Your task to perform on an android device: toggle notification dots Image 0: 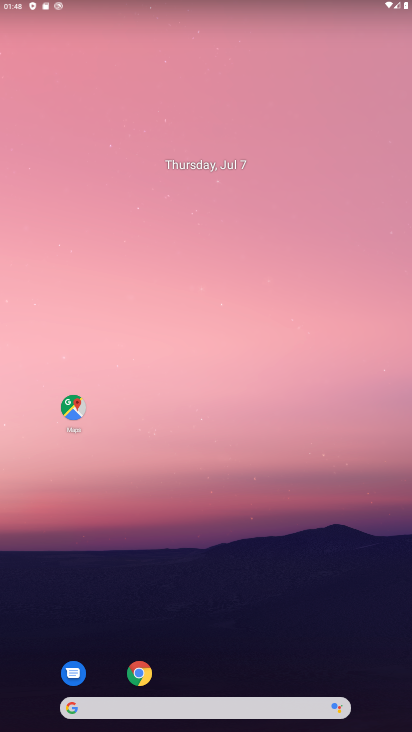
Step 0: drag from (201, 662) to (206, 153)
Your task to perform on an android device: toggle notification dots Image 1: 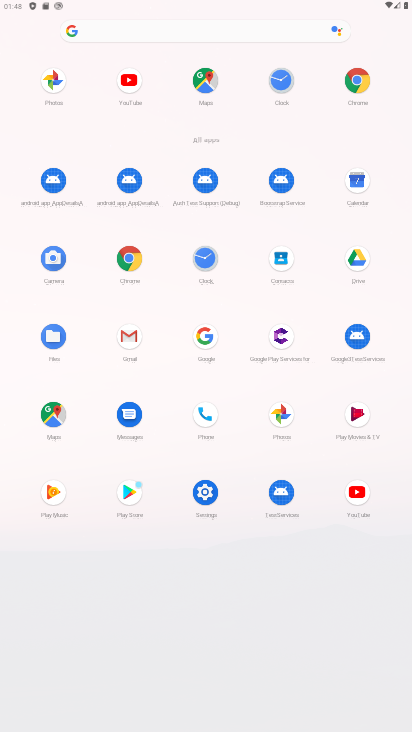
Step 1: click (204, 478)
Your task to perform on an android device: toggle notification dots Image 2: 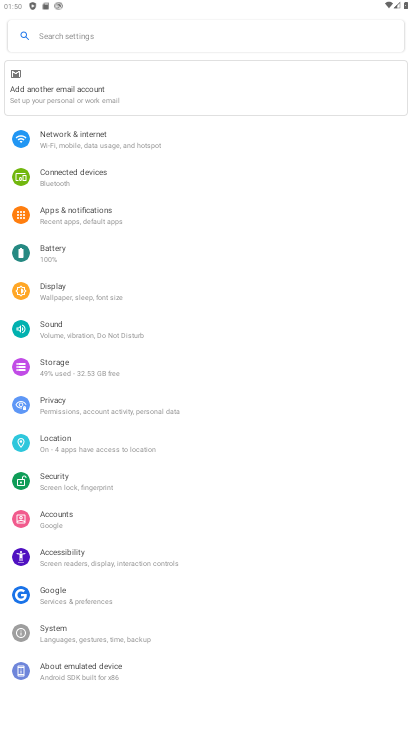
Step 2: click (126, 222)
Your task to perform on an android device: toggle notification dots Image 3: 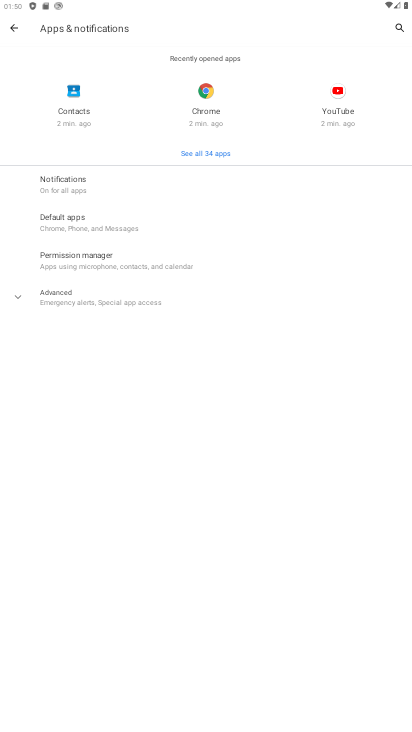
Step 3: click (112, 296)
Your task to perform on an android device: toggle notification dots Image 4: 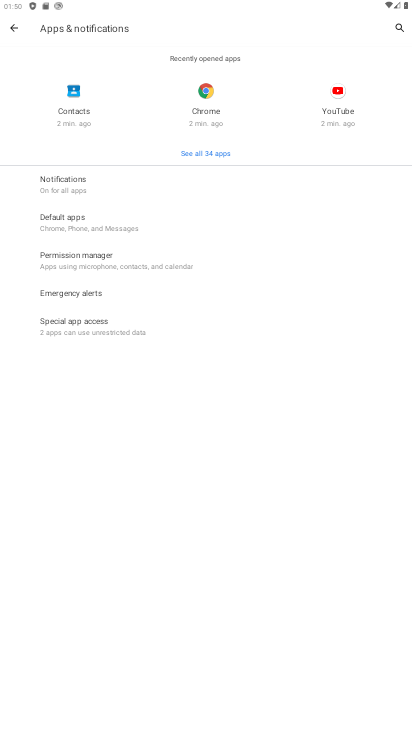
Step 4: click (87, 180)
Your task to perform on an android device: toggle notification dots Image 5: 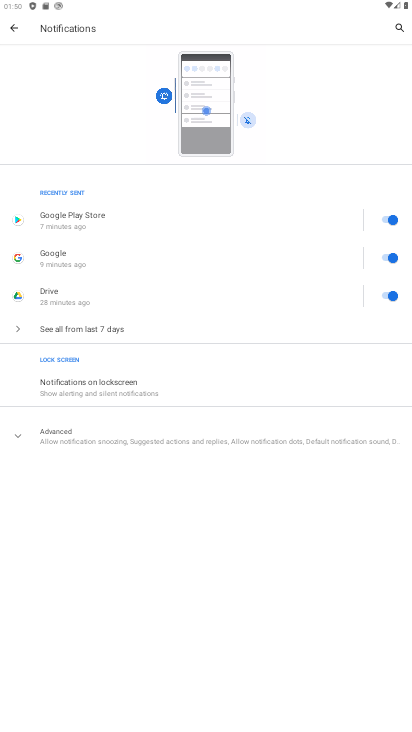
Step 5: click (121, 427)
Your task to perform on an android device: toggle notification dots Image 6: 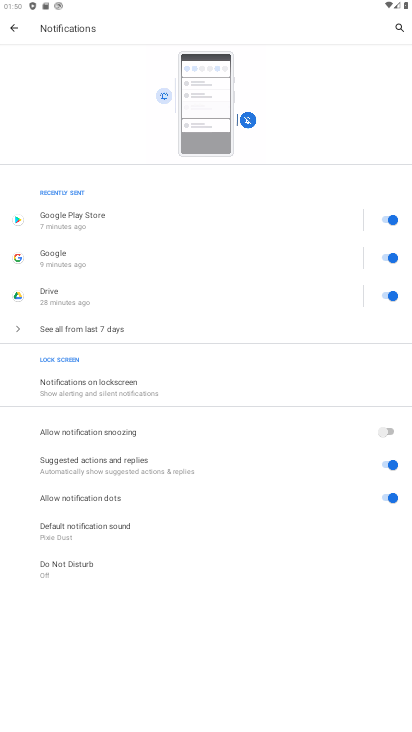
Step 6: click (367, 494)
Your task to perform on an android device: toggle notification dots Image 7: 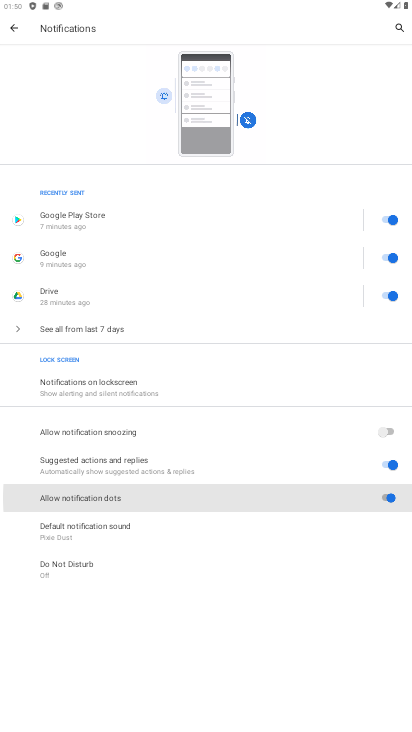
Step 7: click (380, 494)
Your task to perform on an android device: toggle notification dots Image 8: 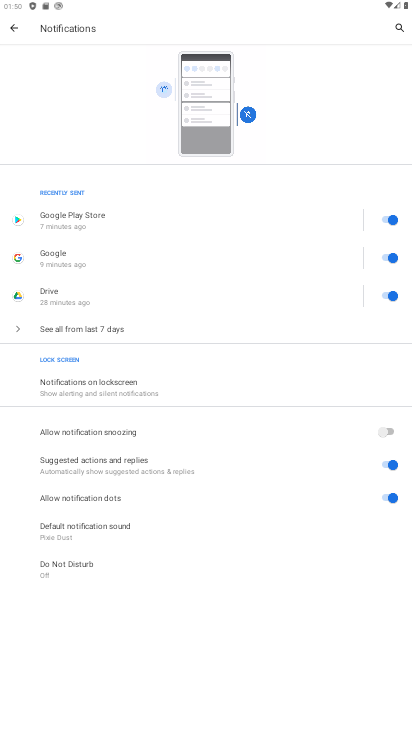
Step 8: click (388, 496)
Your task to perform on an android device: toggle notification dots Image 9: 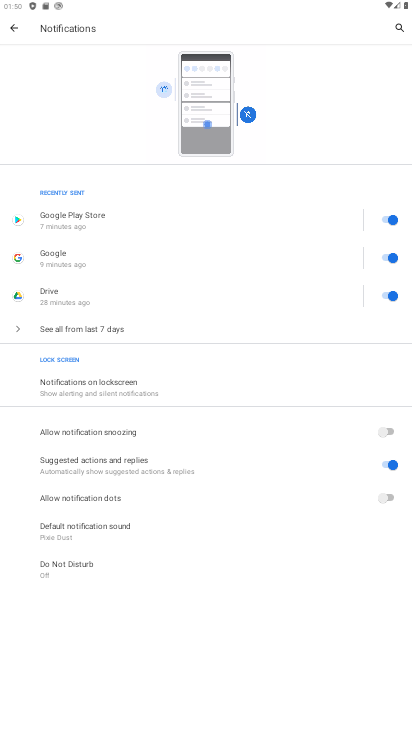
Step 9: task complete